Your task to perform on an android device: Go to eBay Image 0: 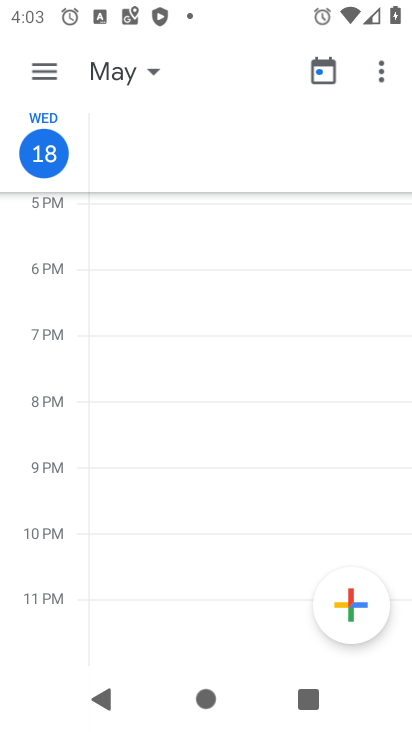
Step 0: press home button
Your task to perform on an android device: Go to eBay Image 1: 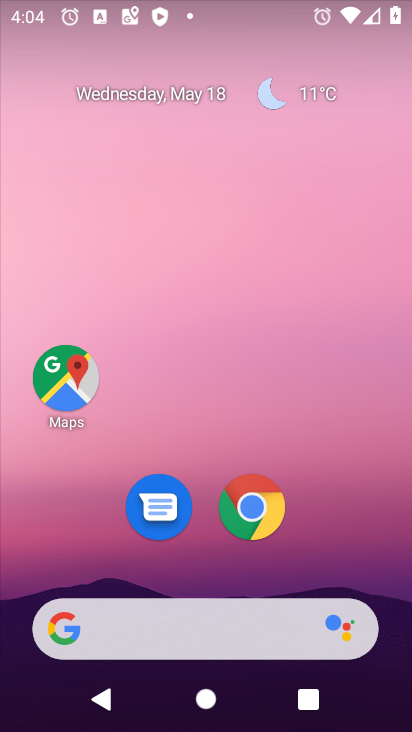
Step 1: click (254, 505)
Your task to perform on an android device: Go to eBay Image 2: 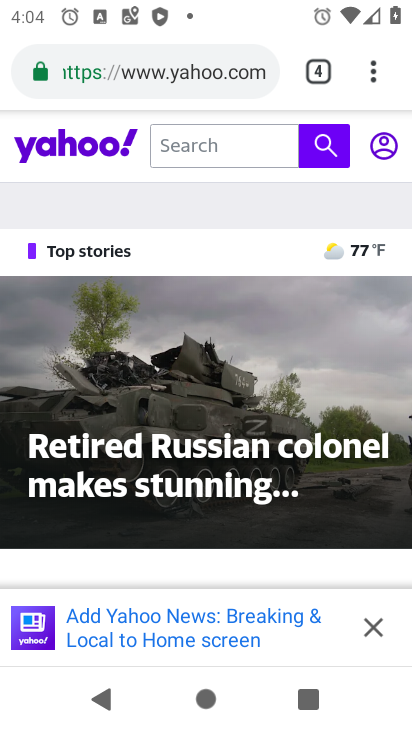
Step 2: click (148, 77)
Your task to perform on an android device: Go to eBay Image 3: 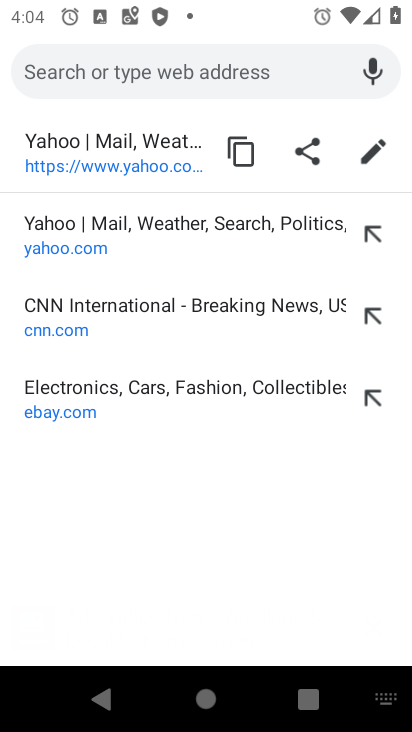
Step 3: type "ebay"
Your task to perform on an android device: Go to eBay Image 4: 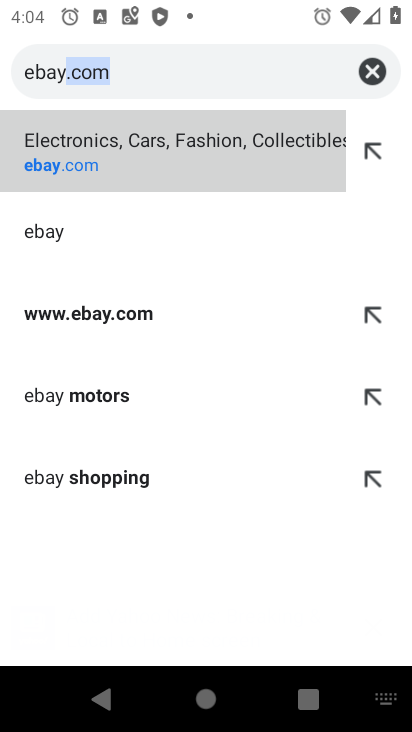
Step 4: click (81, 157)
Your task to perform on an android device: Go to eBay Image 5: 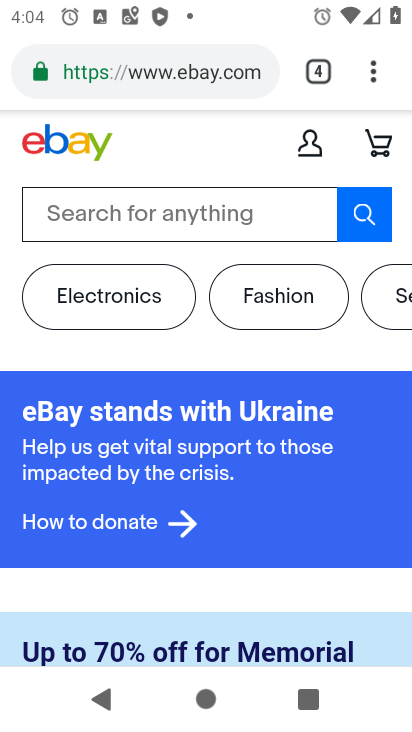
Step 5: task complete